Your task to perform on an android device: find which apps use the phone's location Image 0: 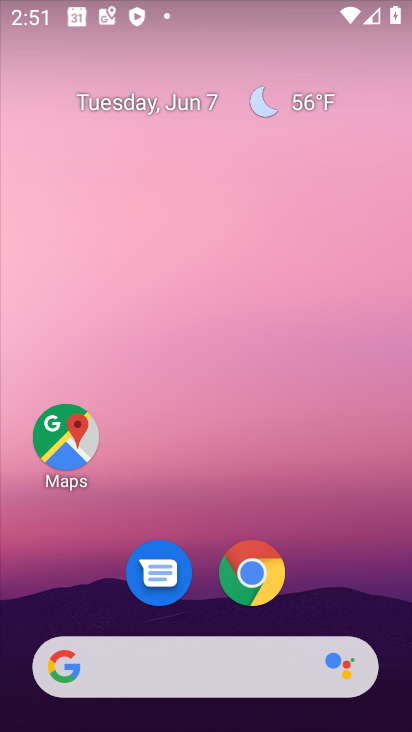
Step 0: drag from (332, 598) to (349, 48)
Your task to perform on an android device: find which apps use the phone's location Image 1: 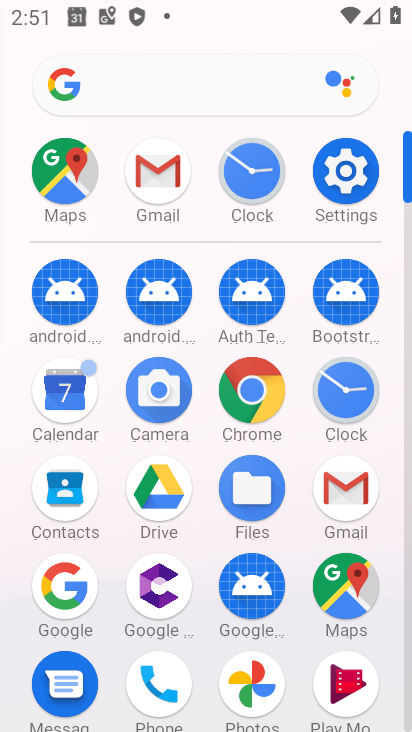
Step 1: click (332, 165)
Your task to perform on an android device: find which apps use the phone's location Image 2: 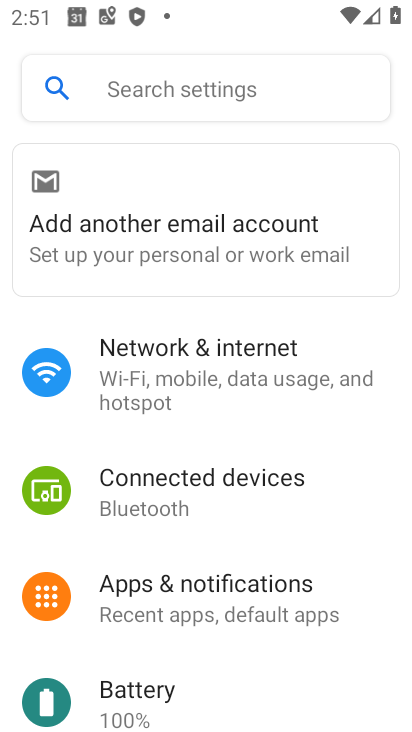
Step 2: drag from (164, 584) to (225, 167)
Your task to perform on an android device: find which apps use the phone's location Image 3: 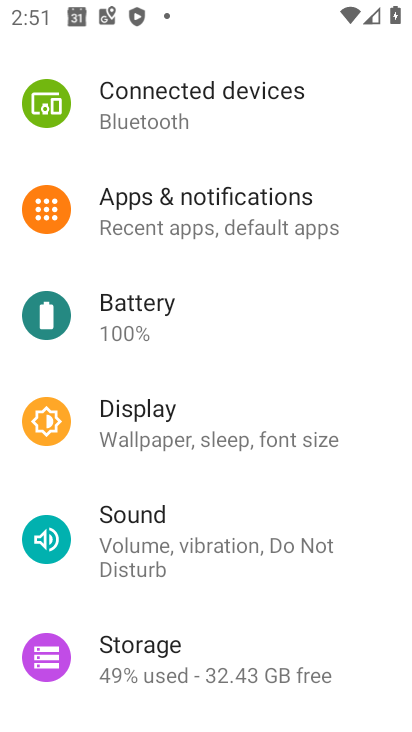
Step 3: drag from (192, 603) to (220, 211)
Your task to perform on an android device: find which apps use the phone's location Image 4: 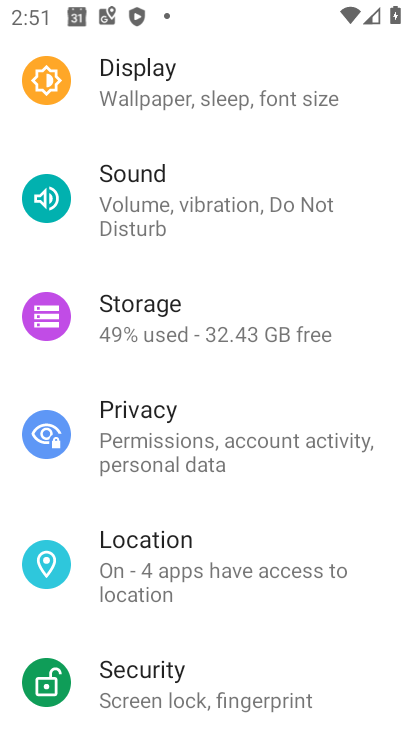
Step 4: click (177, 577)
Your task to perform on an android device: find which apps use the phone's location Image 5: 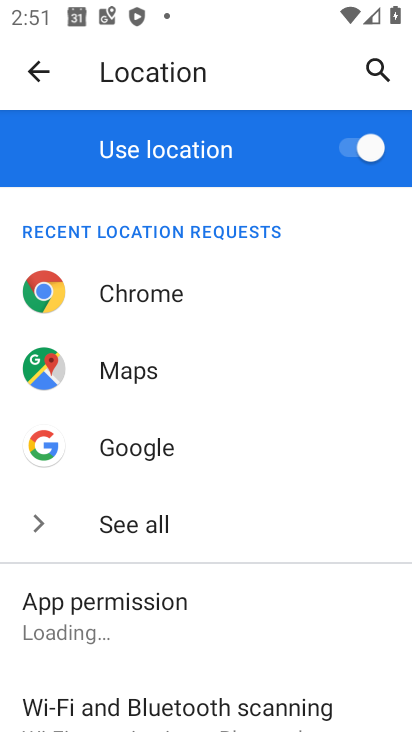
Step 5: click (146, 610)
Your task to perform on an android device: find which apps use the phone's location Image 6: 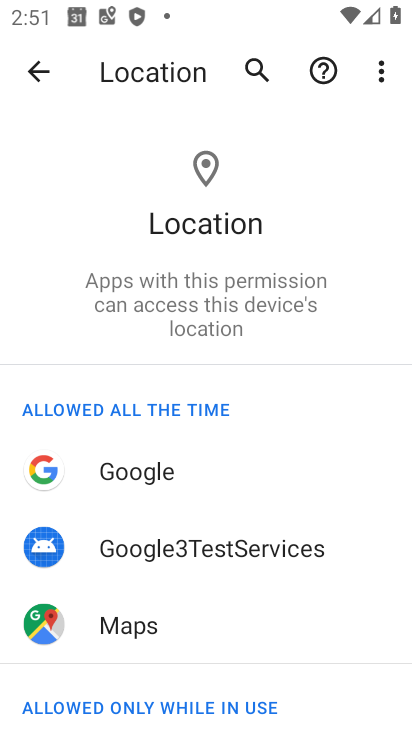
Step 6: task complete